Your task to perform on an android device: Open the phone app and click the voicemail tab. Image 0: 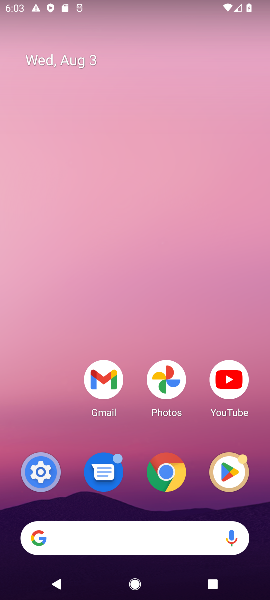
Step 0: drag from (186, 348) to (142, 3)
Your task to perform on an android device: Open the phone app and click the voicemail tab. Image 1: 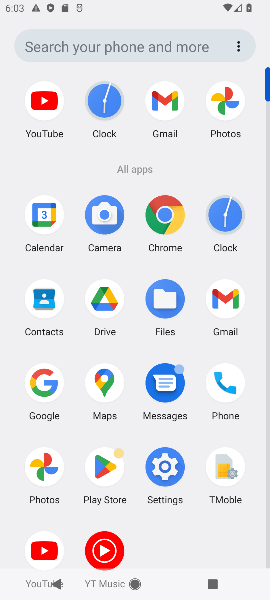
Step 1: click (239, 385)
Your task to perform on an android device: Open the phone app and click the voicemail tab. Image 2: 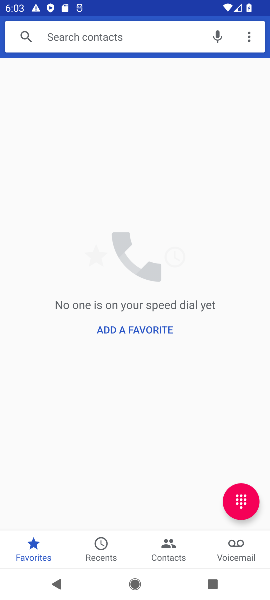
Step 2: click (250, 545)
Your task to perform on an android device: Open the phone app and click the voicemail tab. Image 3: 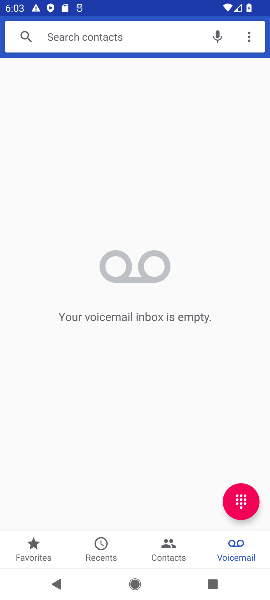
Step 3: task complete